Your task to perform on an android device: turn pop-ups off in chrome Image 0: 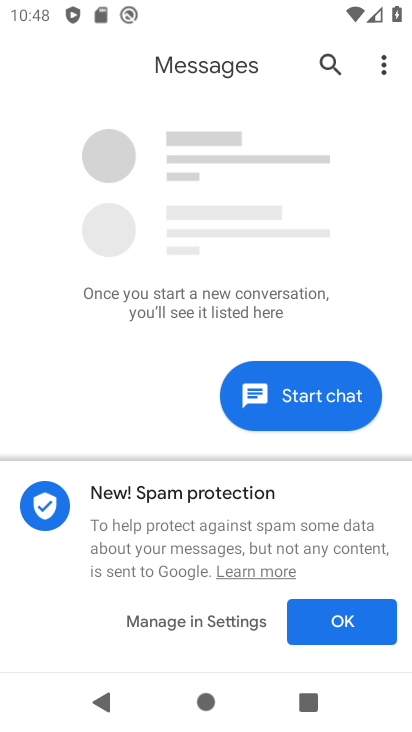
Step 0: press home button
Your task to perform on an android device: turn pop-ups off in chrome Image 1: 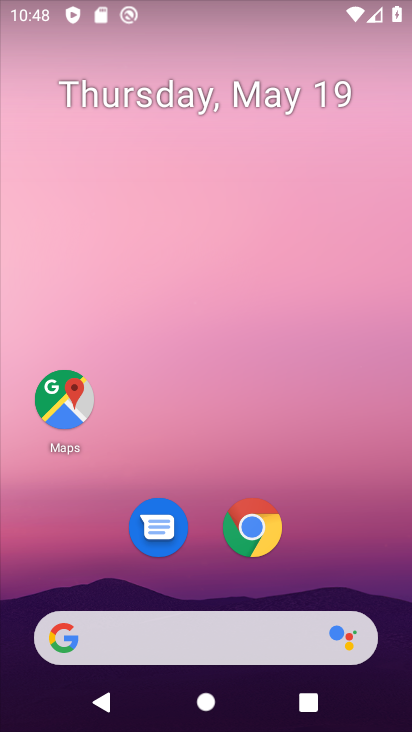
Step 1: click (252, 543)
Your task to perform on an android device: turn pop-ups off in chrome Image 2: 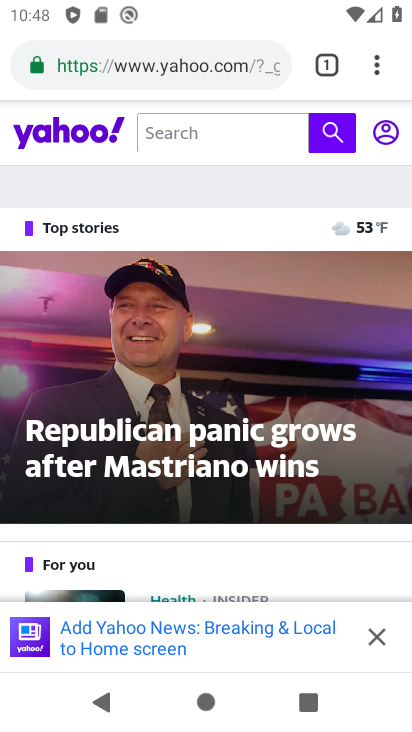
Step 2: click (384, 68)
Your task to perform on an android device: turn pop-ups off in chrome Image 3: 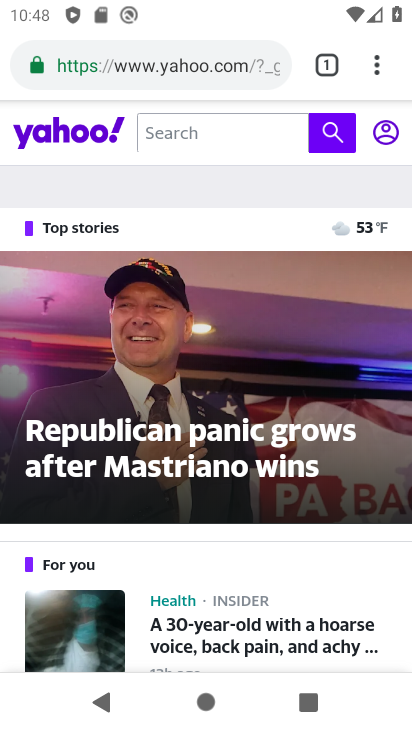
Step 3: click (379, 68)
Your task to perform on an android device: turn pop-ups off in chrome Image 4: 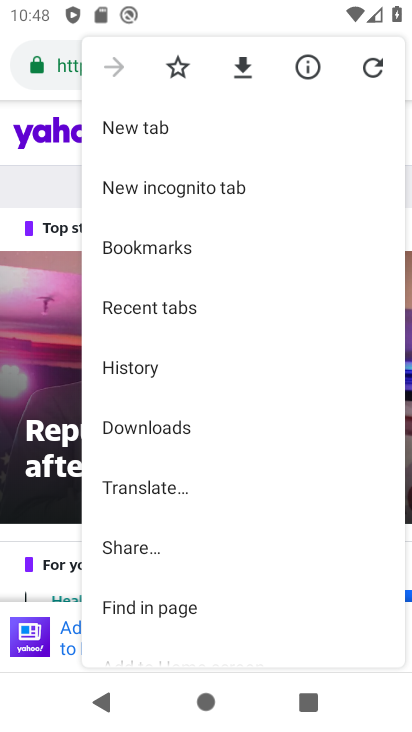
Step 4: drag from (168, 599) to (237, 281)
Your task to perform on an android device: turn pop-ups off in chrome Image 5: 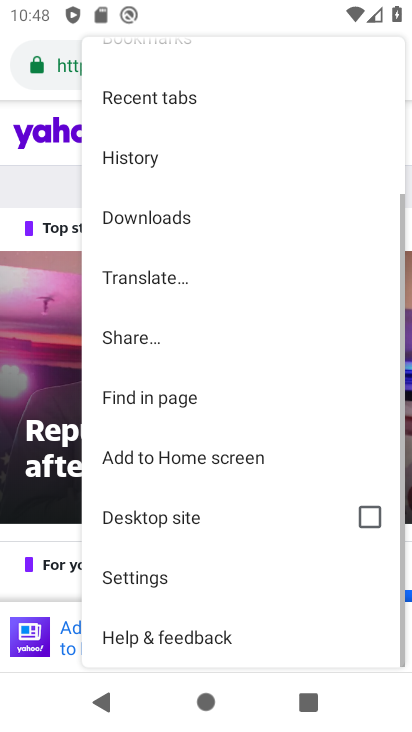
Step 5: click (133, 581)
Your task to perform on an android device: turn pop-ups off in chrome Image 6: 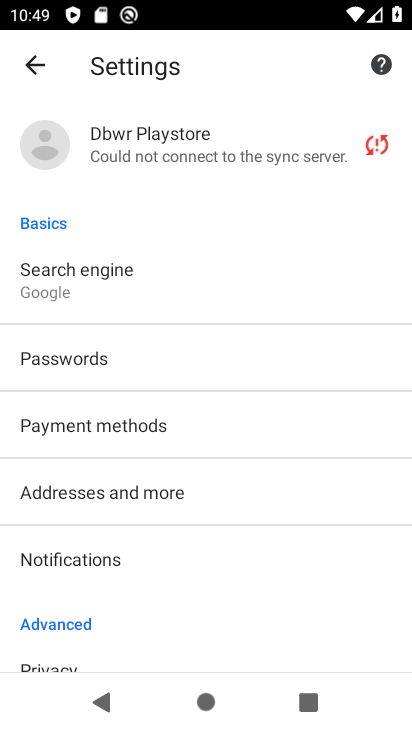
Step 6: drag from (82, 517) to (111, 352)
Your task to perform on an android device: turn pop-ups off in chrome Image 7: 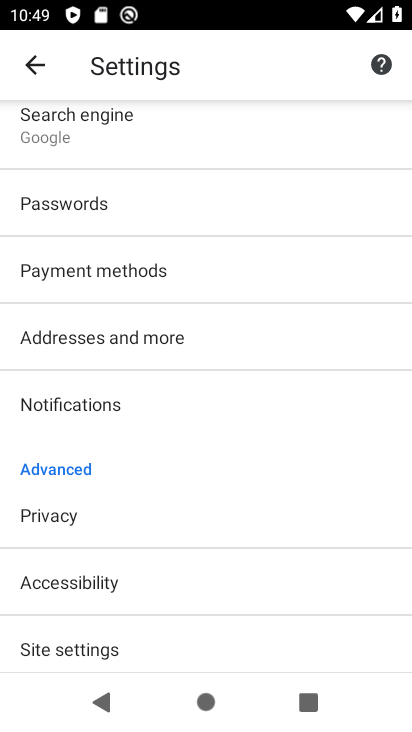
Step 7: click (88, 641)
Your task to perform on an android device: turn pop-ups off in chrome Image 8: 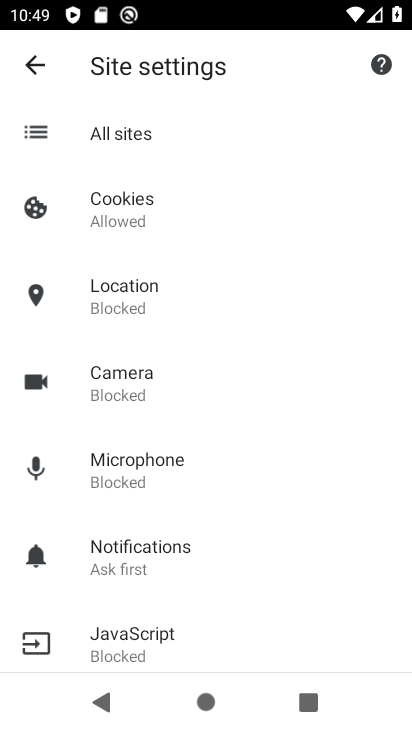
Step 8: drag from (153, 598) to (207, 260)
Your task to perform on an android device: turn pop-ups off in chrome Image 9: 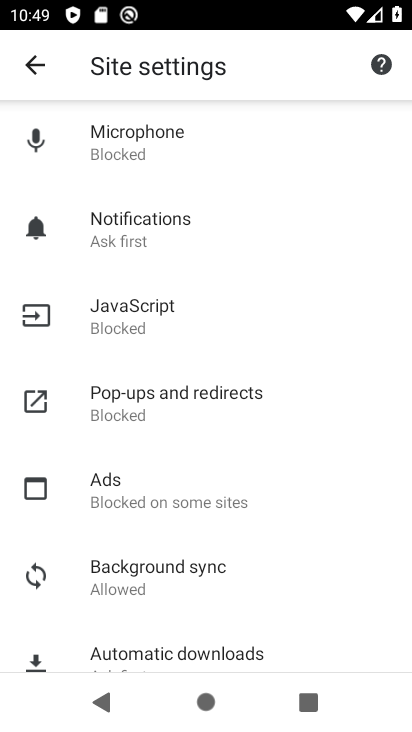
Step 9: drag from (157, 559) to (157, 445)
Your task to perform on an android device: turn pop-ups off in chrome Image 10: 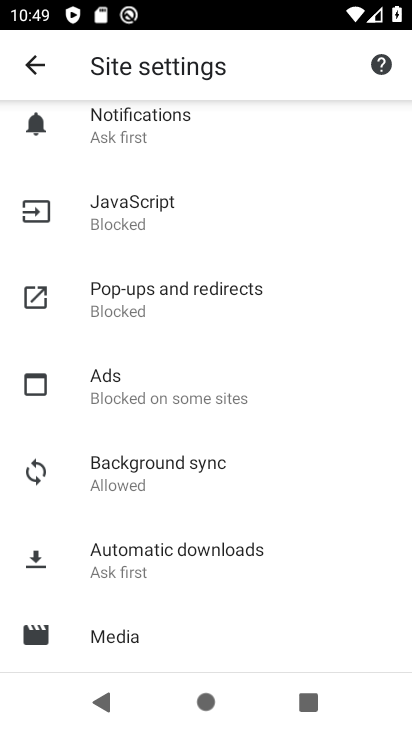
Step 10: click (180, 308)
Your task to perform on an android device: turn pop-ups off in chrome Image 11: 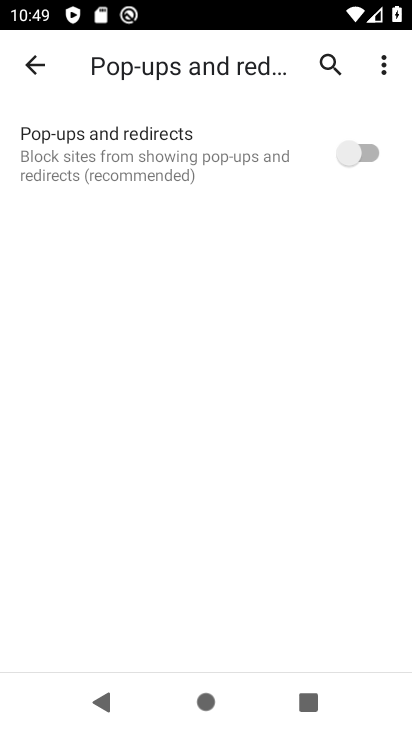
Step 11: task complete